Your task to perform on an android device: Go to CNN.com Image 0: 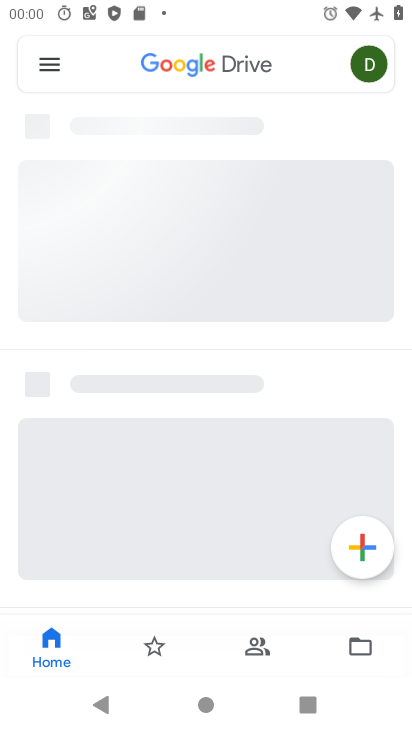
Step 0: drag from (255, 637) to (169, 180)
Your task to perform on an android device: Go to CNN.com Image 1: 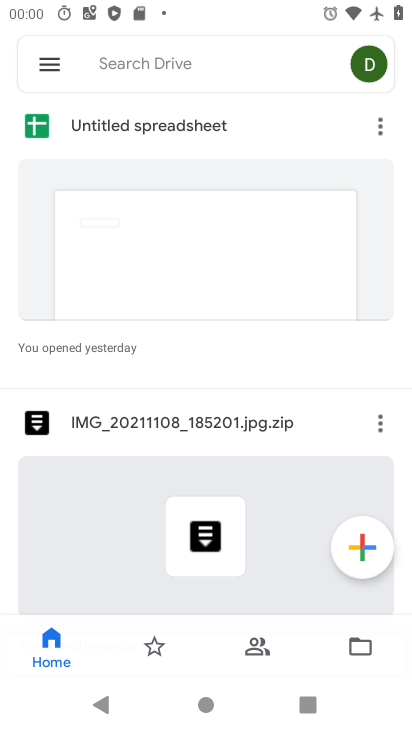
Step 1: press back button
Your task to perform on an android device: Go to CNN.com Image 2: 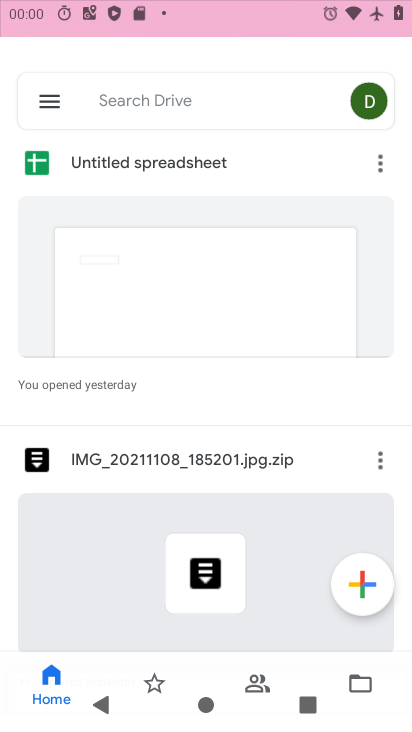
Step 2: press back button
Your task to perform on an android device: Go to CNN.com Image 3: 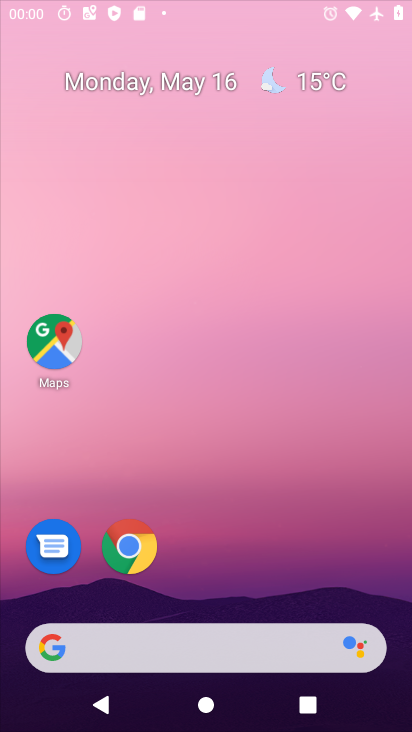
Step 3: press back button
Your task to perform on an android device: Go to CNN.com Image 4: 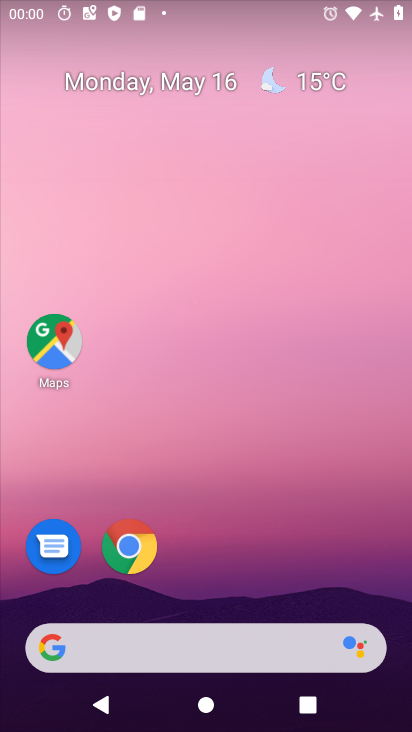
Step 4: drag from (261, 613) to (183, 185)
Your task to perform on an android device: Go to CNN.com Image 5: 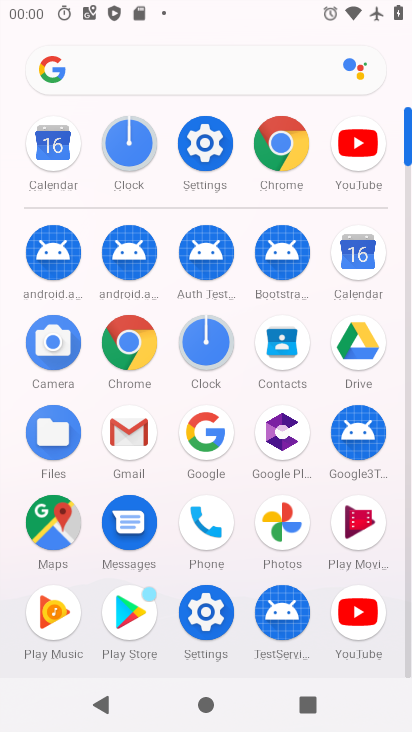
Step 5: click (289, 141)
Your task to perform on an android device: Go to CNN.com Image 6: 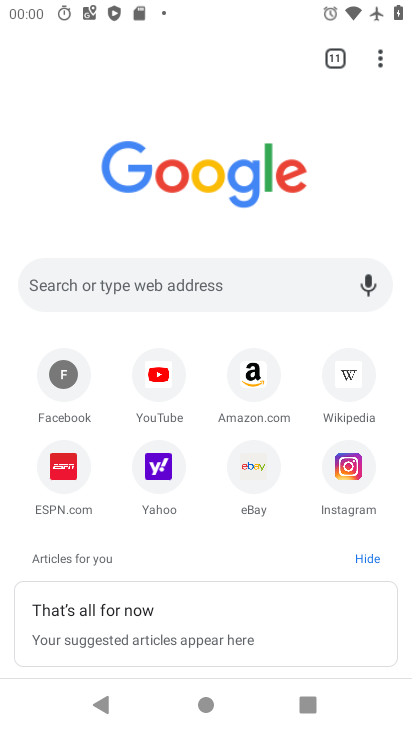
Step 6: click (61, 294)
Your task to perform on an android device: Go to CNN.com Image 7: 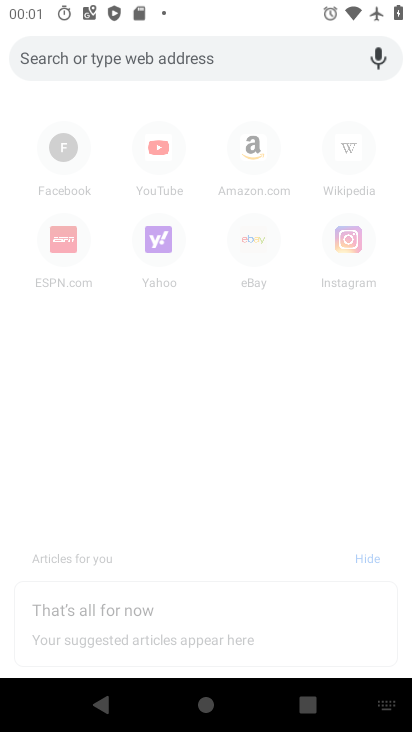
Step 7: type "cnn.com"
Your task to perform on an android device: Go to CNN.com Image 8: 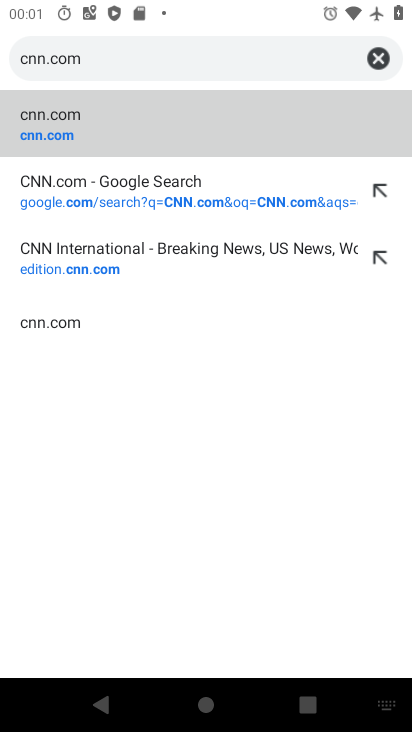
Step 8: click (38, 125)
Your task to perform on an android device: Go to CNN.com Image 9: 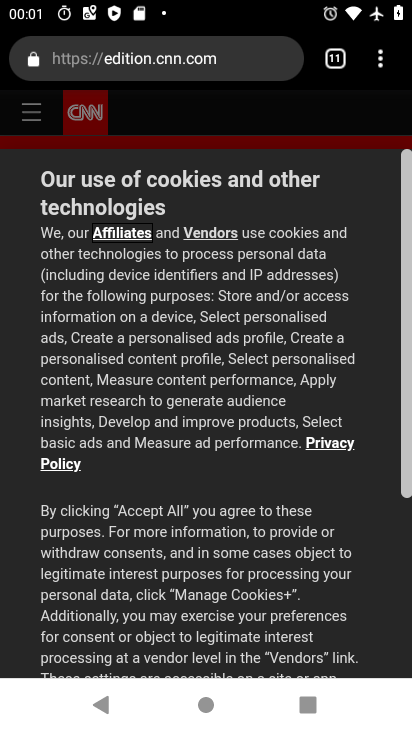
Step 9: task complete